Your task to perform on an android device: uninstall "Microsoft Authenticator" Image 0: 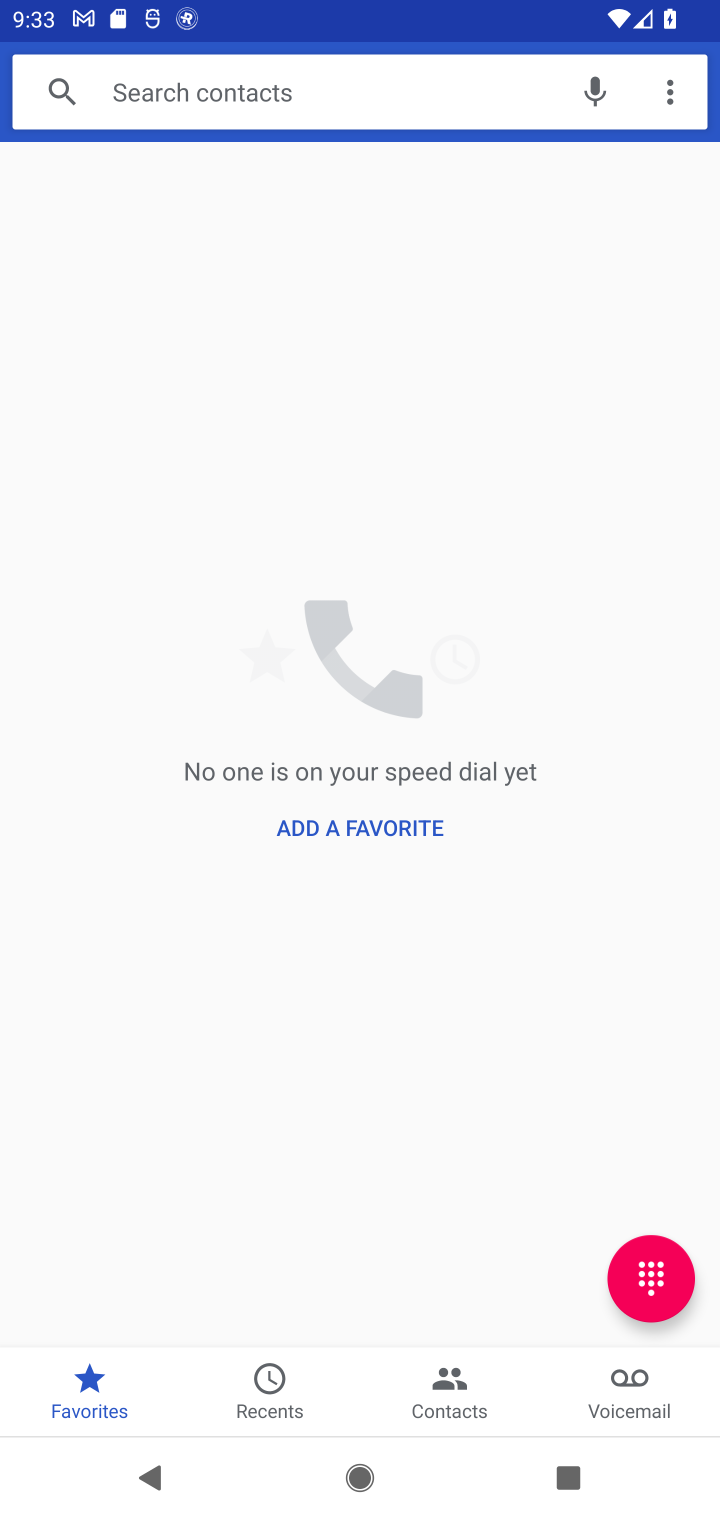
Step 0: press home button
Your task to perform on an android device: uninstall "Microsoft Authenticator" Image 1: 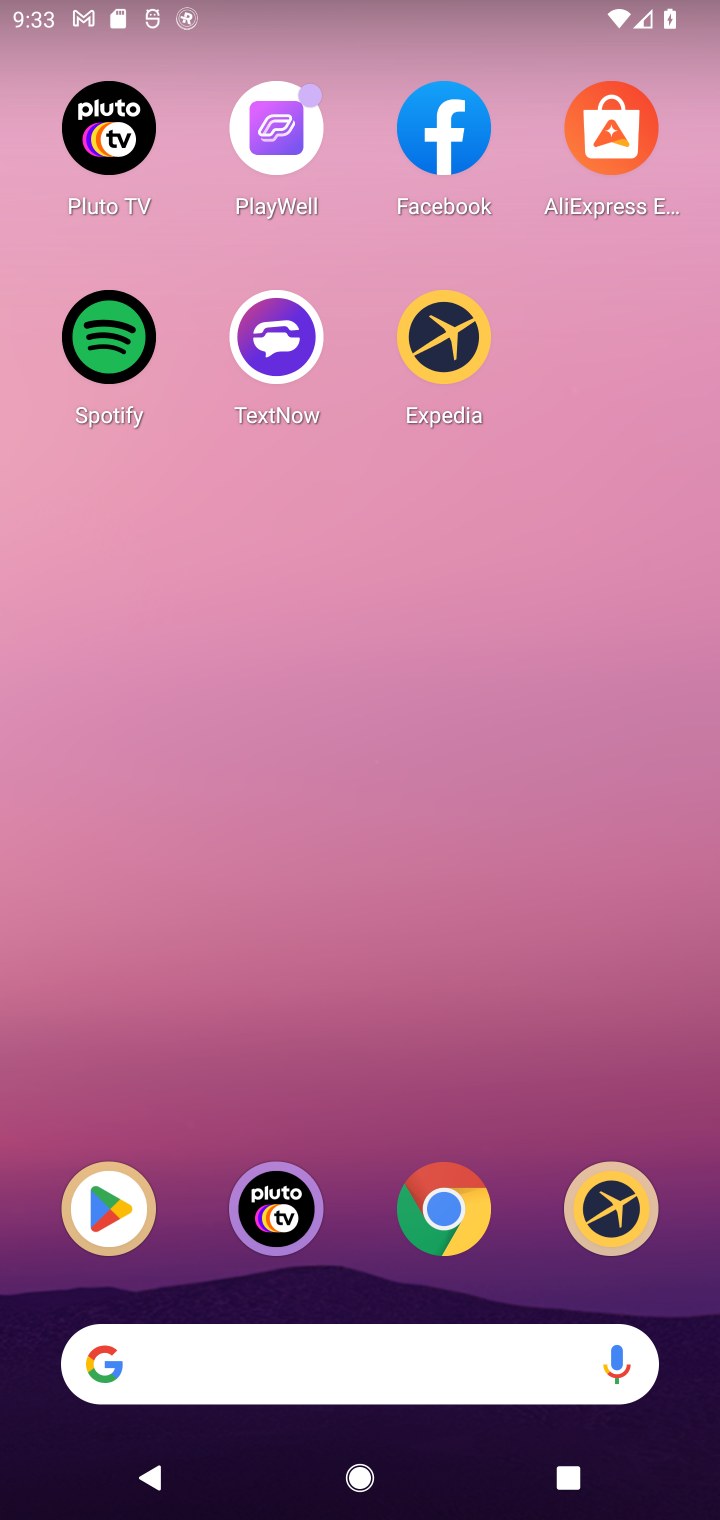
Step 1: drag from (289, 1369) to (303, 13)
Your task to perform on an android device: uninstall "Microsoft Authenticator" Image 2: 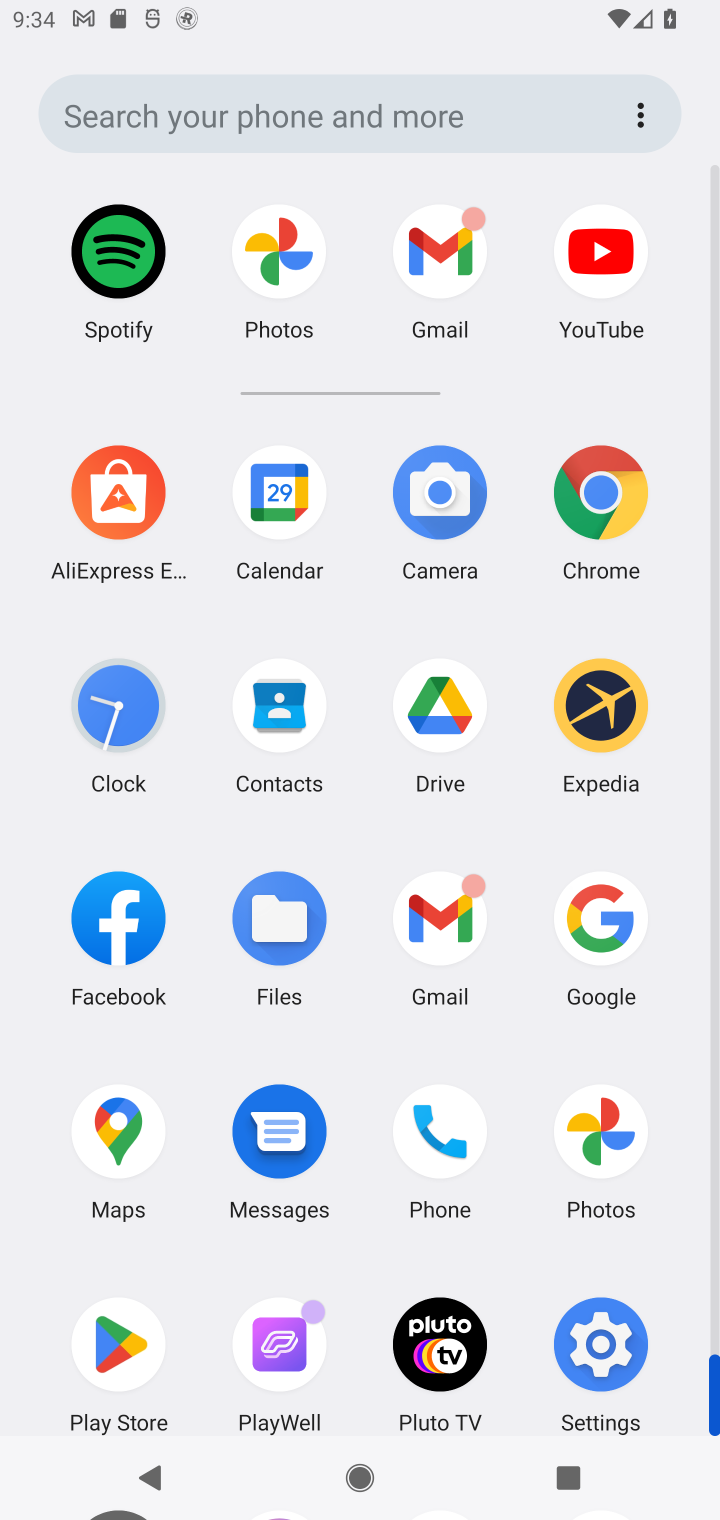
Step 2: click (124, 1343)
Your task to perform on an android device: uninstall "Microsoft Authenticator" Image 3: 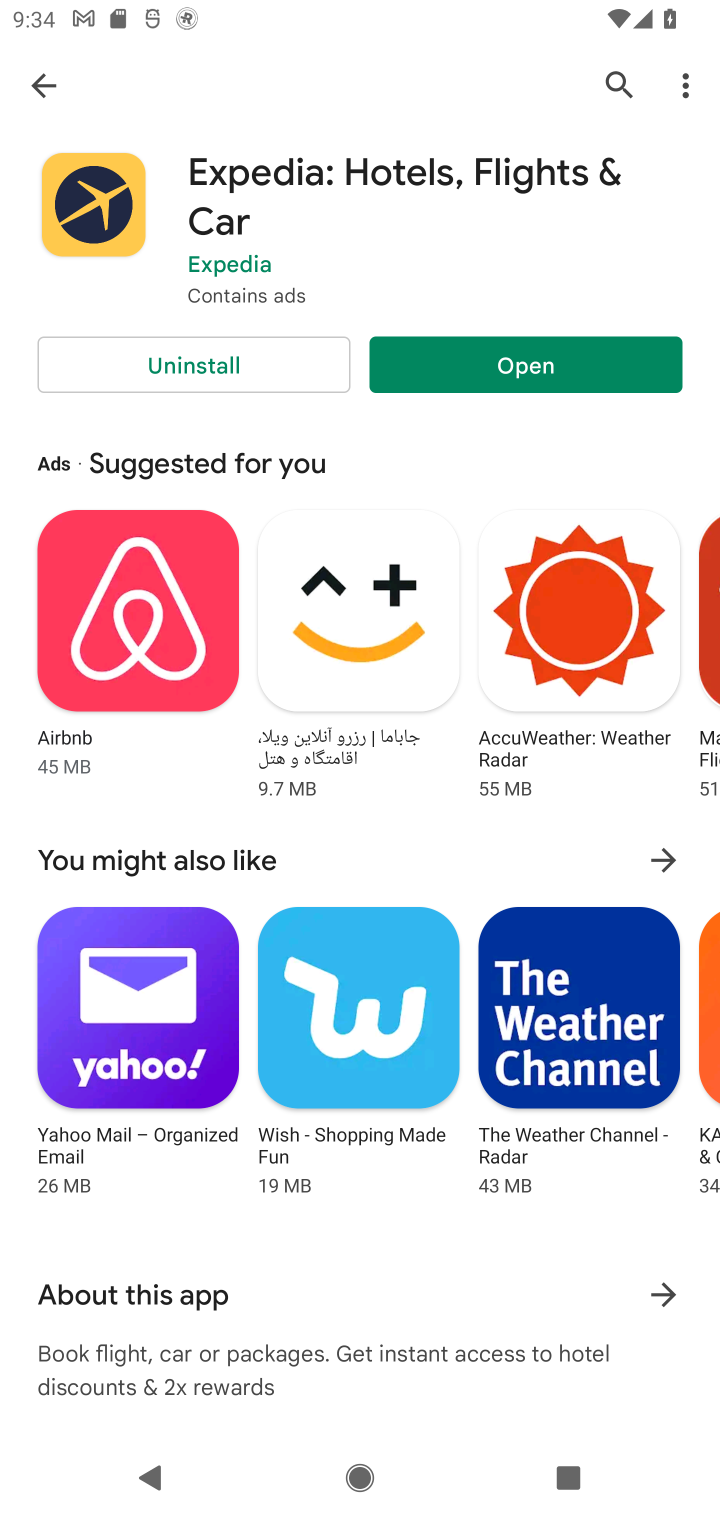
Step 3: click (592, 84)
Your task to perform on an android device: uninstall "Microsoft Authenticator" Image 4: 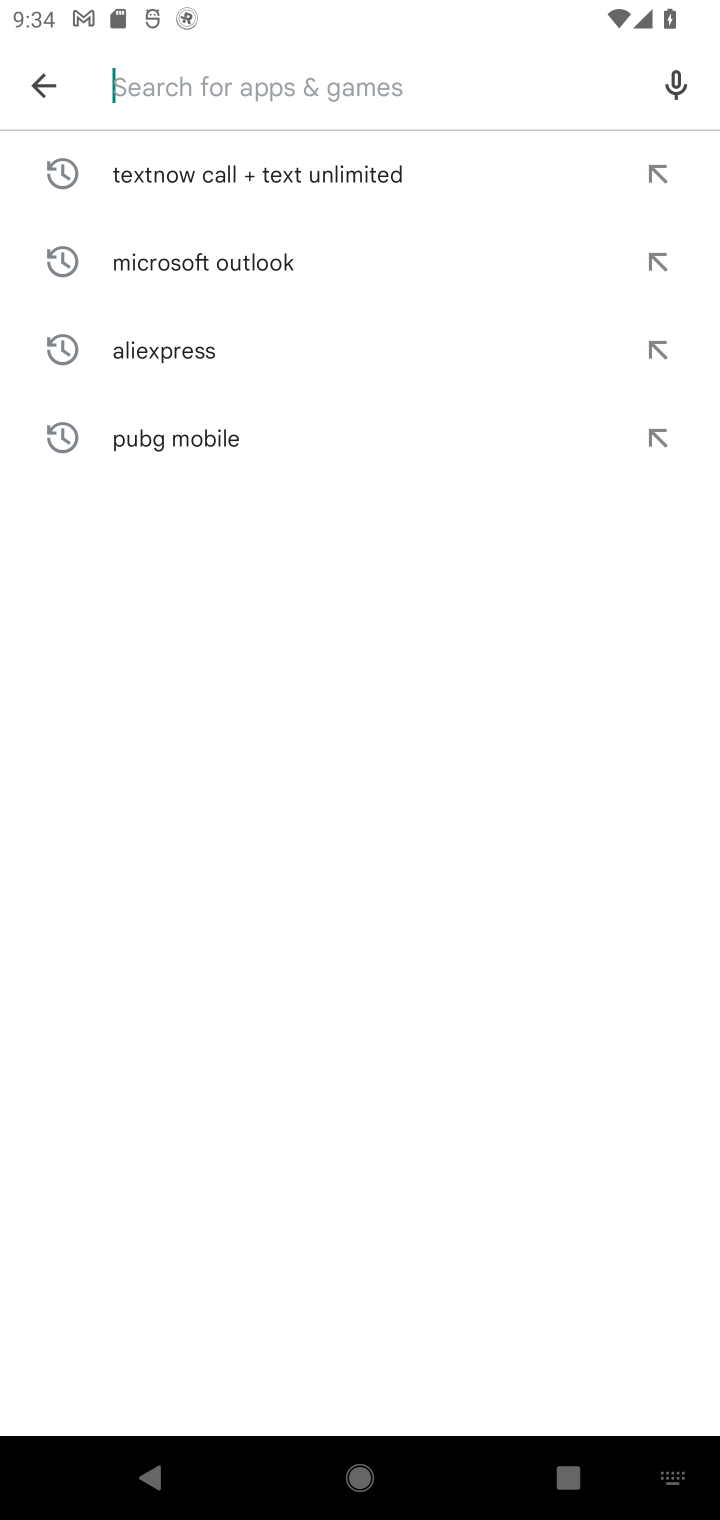
Step 4: click (254, 100)
Your task to perform on an android device: uninstall "Microsoft Authenticator" Image 5: 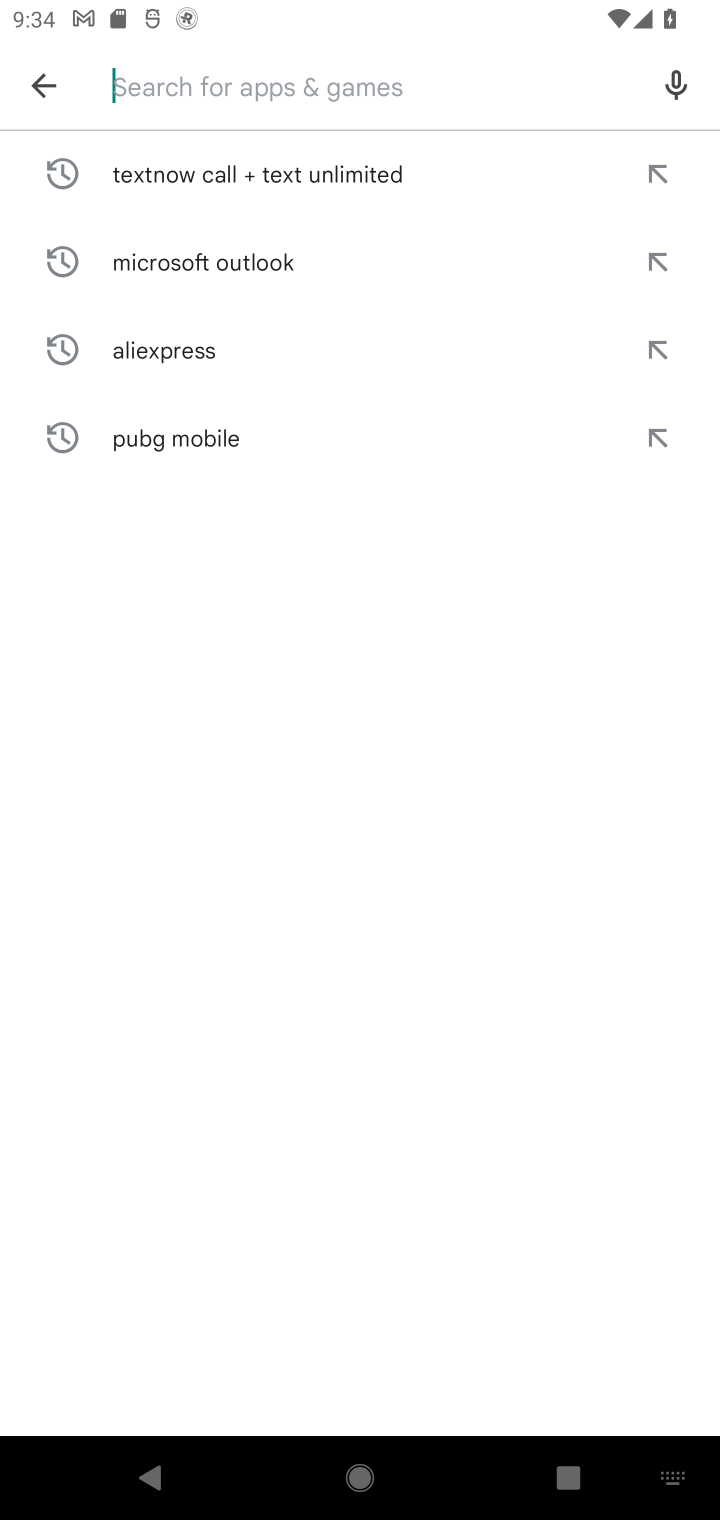
Step 5: type "Microsoft Authenticator"
Your task to perform on an android device: uninstall "Microsoft Authenticator" Image 6: 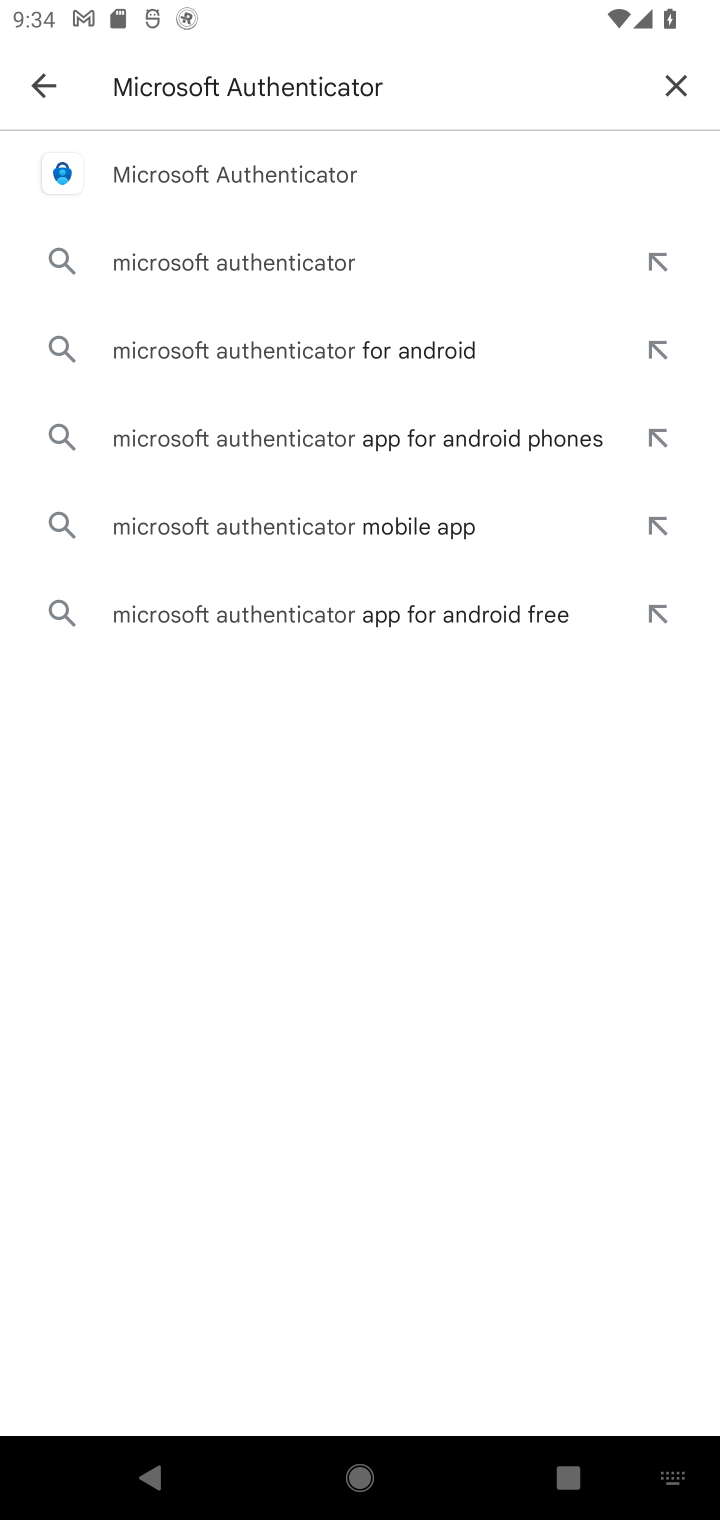
Step 6: click (316, 166)
Your task to perform on an android device: uninstall "Microsoft Authenticator" Image 7: 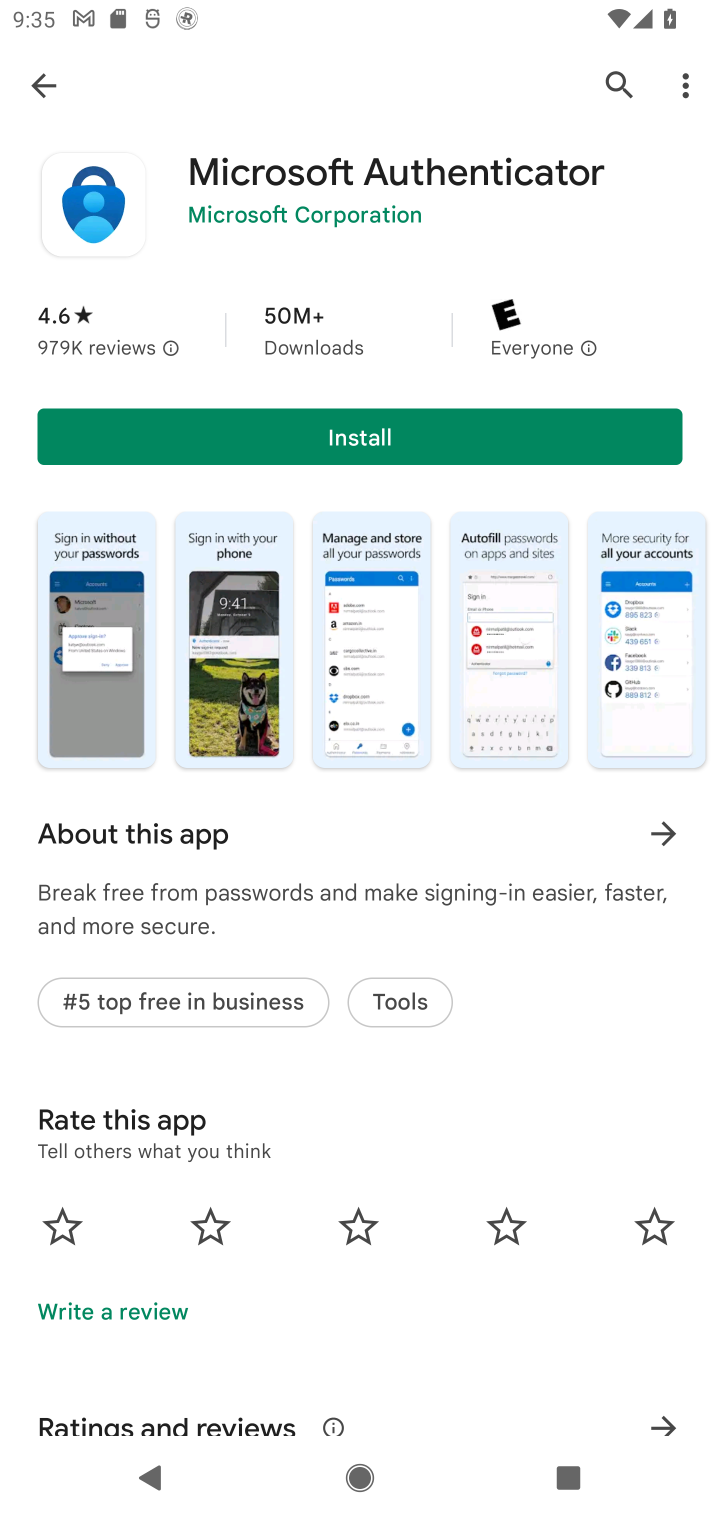
Step 7: task complete